Your task to perform on an android device: Do I have any events today? Image 0: 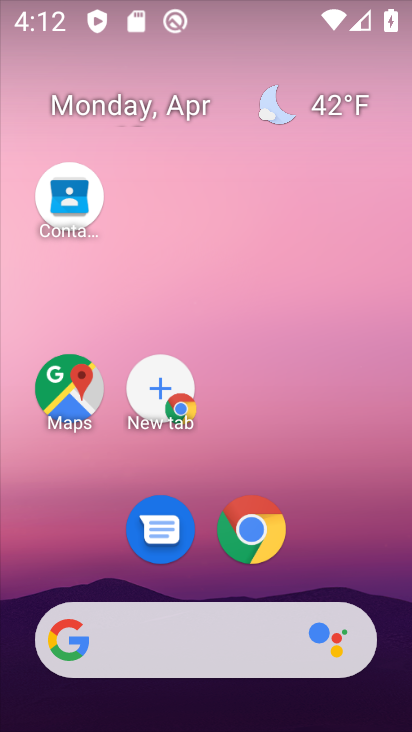
Step 0: drag from (188, 524) to (329, 17)
Your task to perform on an android device: Do I have any events today? Image 1: 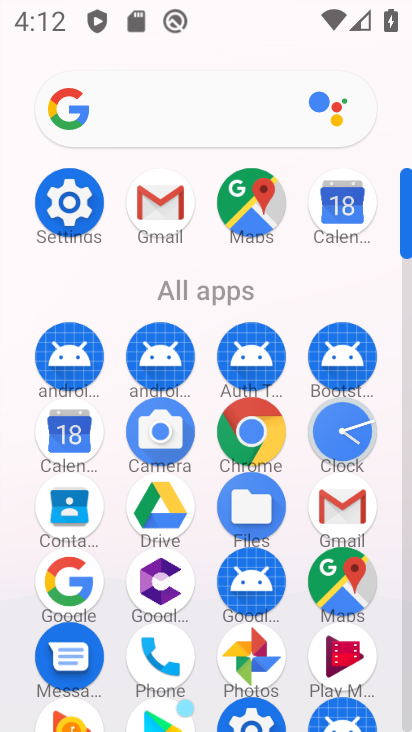
Step 1: click (64, 424)
Your task to perform on an android device: Do I have any events today? Image 2: 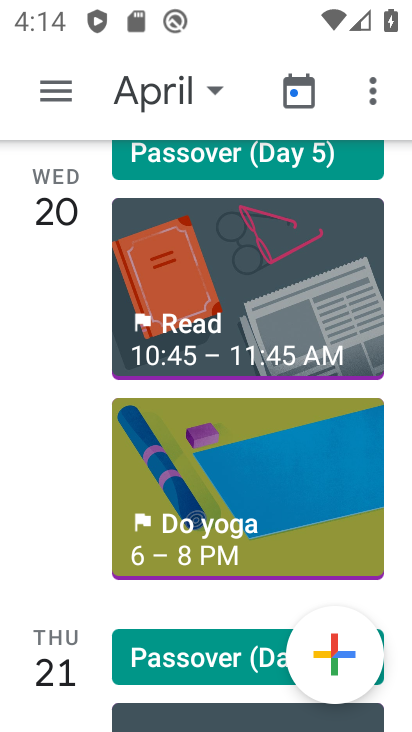
Step 2: task complete